Your task to perform on an android device: turn off wifi Image 0: 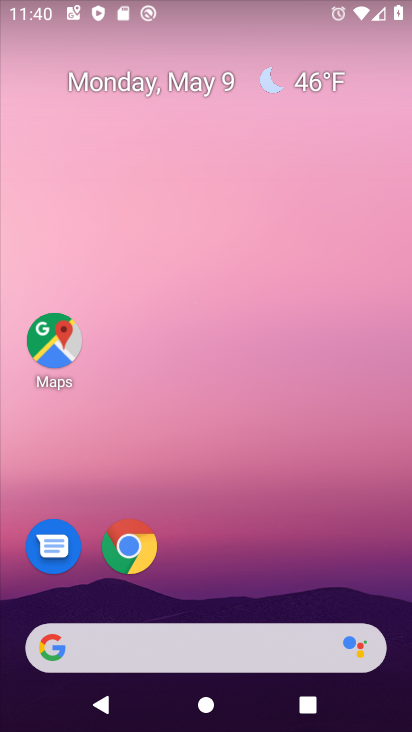
Step 0: drag from (376, 617) to (406, 83)
Your task to perform on an android device: turn off wifi Image 1: 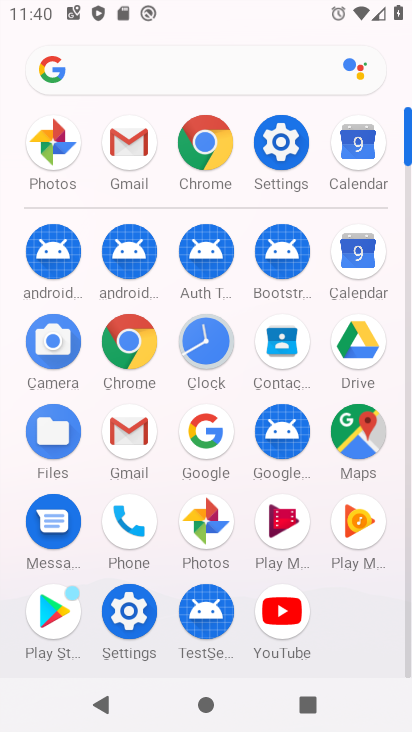
Step 1: click (278, 146)
Your task to perform on an android device: turn off wifi Image 2: 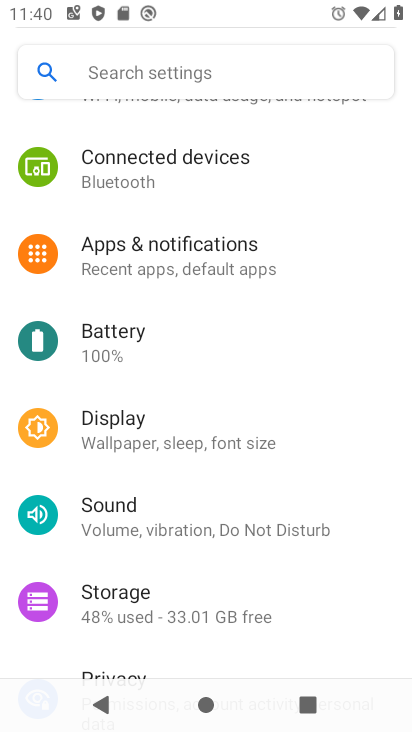
Step 2: drag from (311, 151) to (318, 483)
Your task to perform on an android device: turn off wifi Image 3: 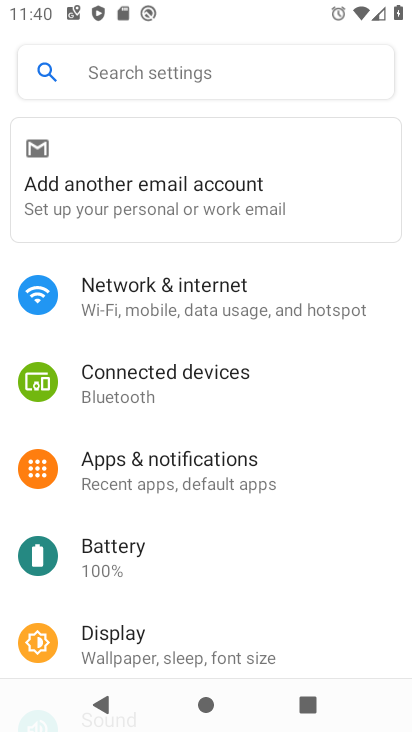
Step 3: click (175, 302)
Your task to perform on an android device: turn off wifi Image 4: 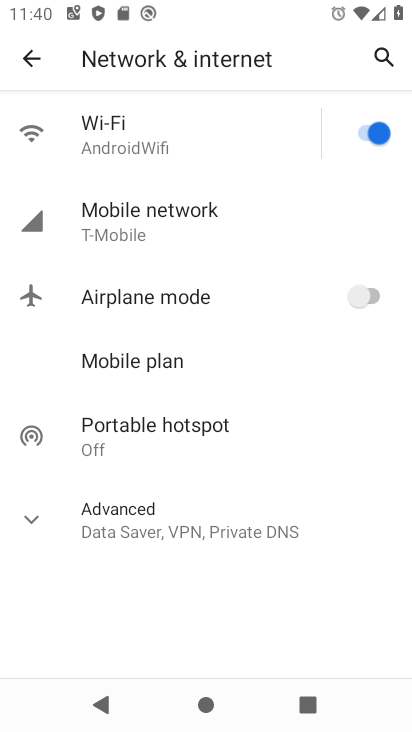
Step 4: click (369, 135)
Your task to perform on an android device: turn off wifi Image 5: 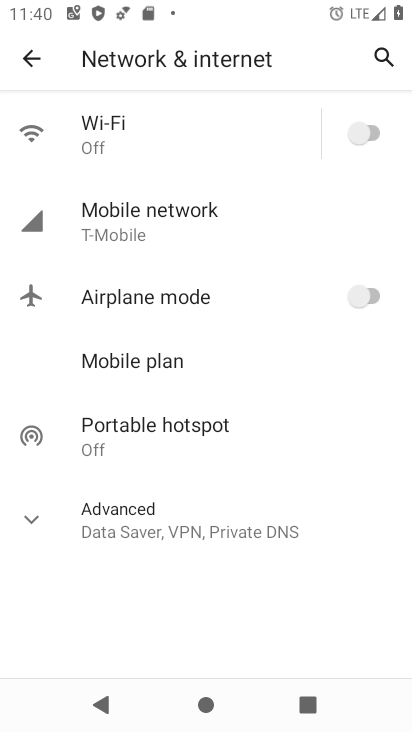
Step 5: task complete